Your task to perform on an android device: Open Google Maps Image 0: 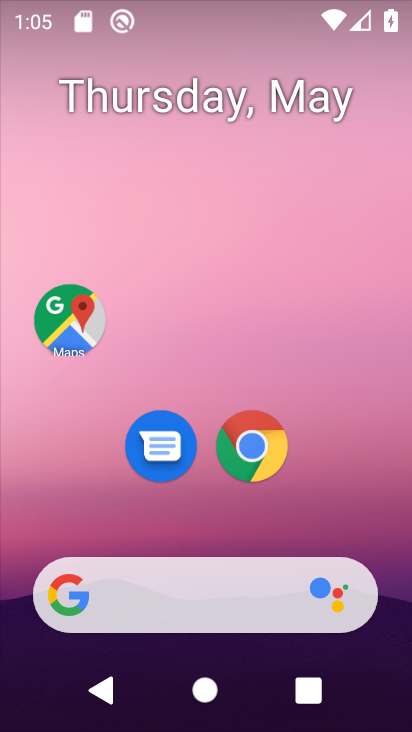
Step 0: click (73, 335)
Your task to perform on an android device: Open Google Maps Image 1: 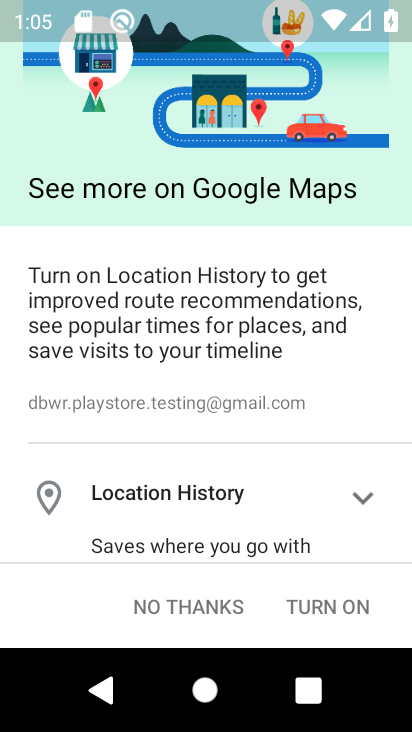
Step 1: click (191, 602)
Your task to perform on an android device: Open Google Maps Image 2: 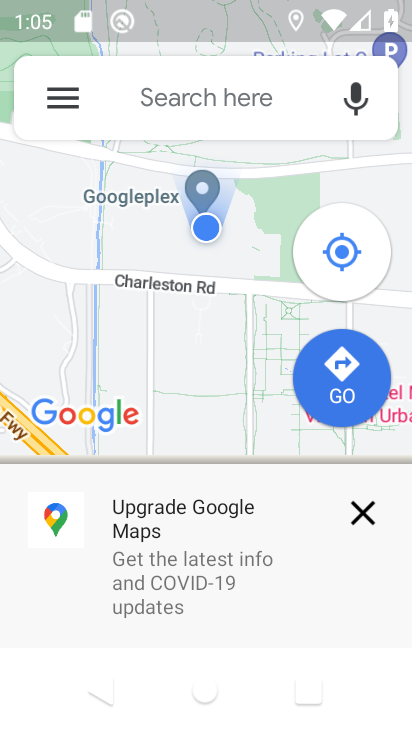
Step 2: click (356, 502)
Your task to perform on an android device: Open Google Maps Image 3: 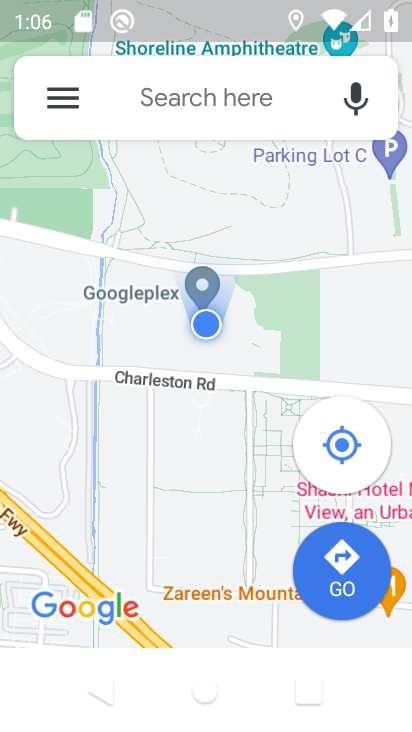
Step 3: task complete